Your task to perform on an android device: Toggle the flashlight Image 0: 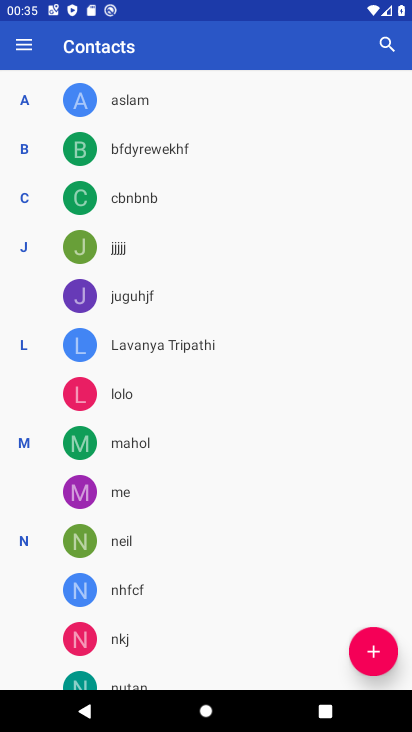
Step 0: press home button
Your task to perform on an android device: Toggle the flashlight Image 1: 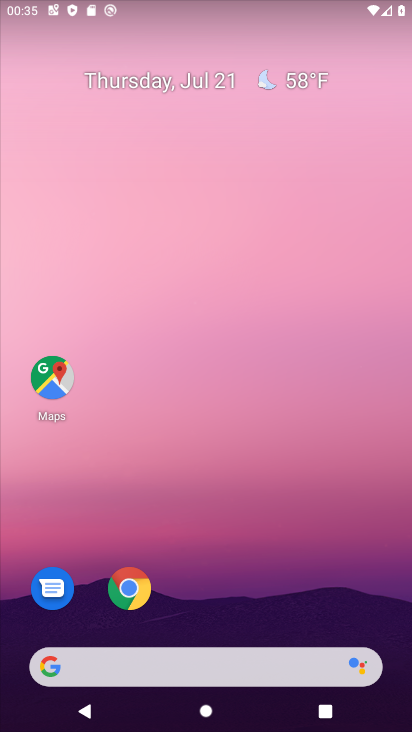
Step 1: drag from (266, 498) to (243, 9)
Your task to perform on an android device: Toggle the flashlight Image 2: 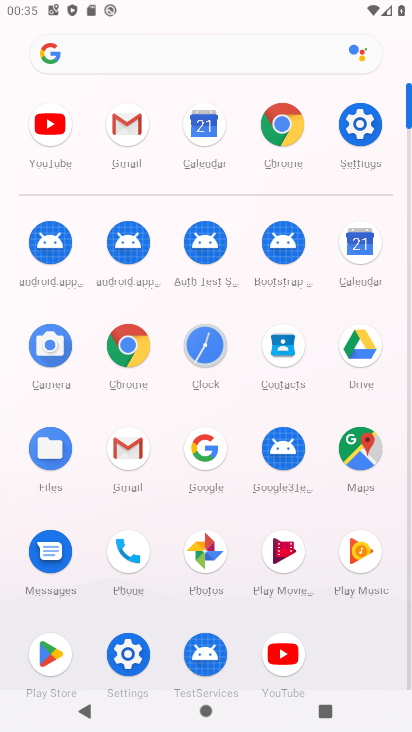
Step 2: click (356, 134)
Your task to perform on an android device: Toggle the flashlight Image 3: 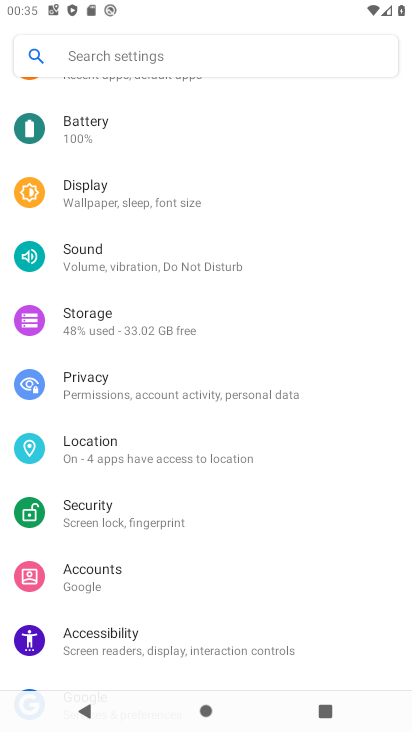
Step 3: click (168, 52)
Your task to perform on an android device: Toggle the flashlight Image 4: 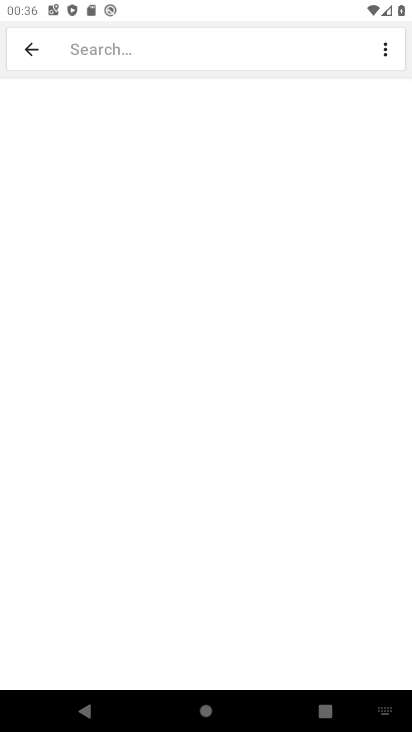
Step 4: type "flashlight"
Your task to perform on an android device: Toggle the flashlight Image 5: 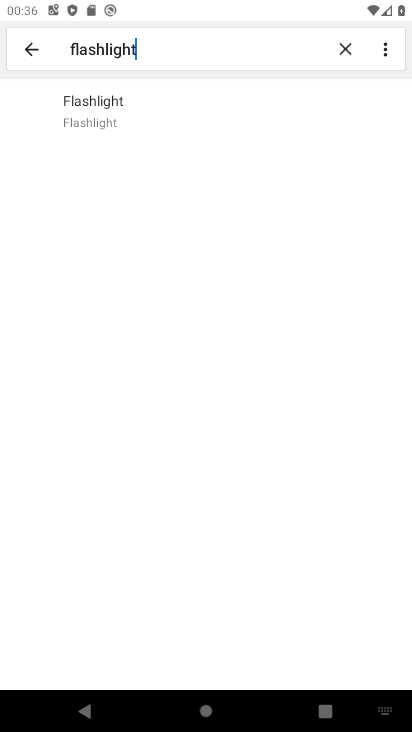
Step 5: click (119, 128)
Your task to perform on an android device: Toggle the flashlight Image 6: 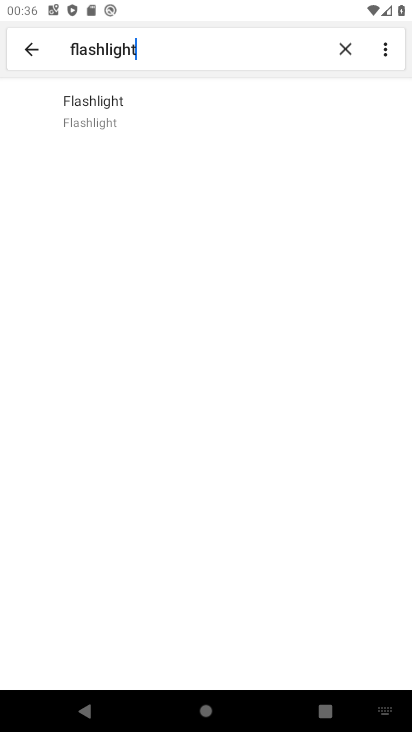
Step 6: click (107, 108)
Your task to perform on an android device: Toggle the flashlight Image 7: 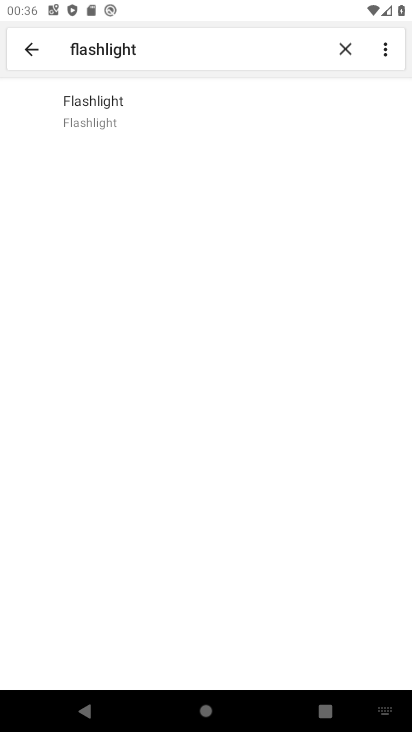
Step 7: task complete